Your task to perform on an android device: What's the weather going to be tomorrow? Image 0: 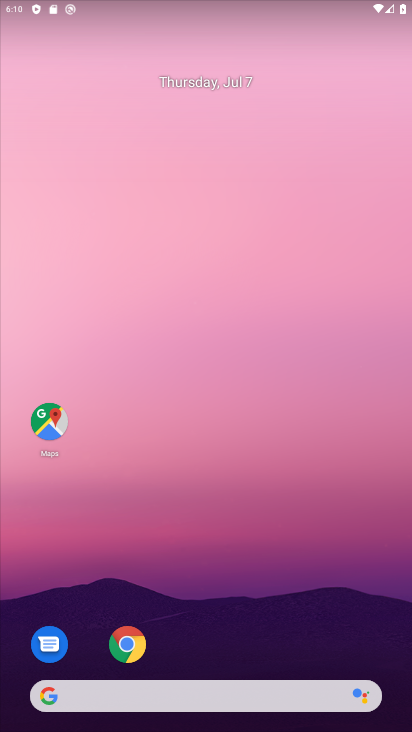
Step 0: drag from (253, 645) to (259, 180)
Your task to perform on an android device: What's the weather going to be tomorrow? Image 1: 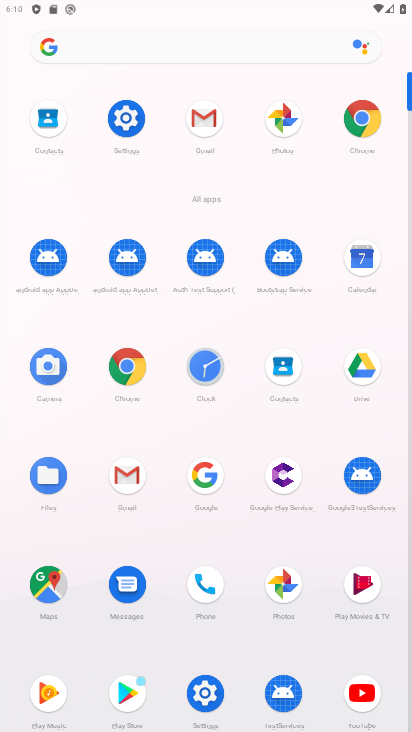
Step 1: click (369, 129)
Your task to perform on an android device: What's the weather going to be tomorrow? Image 2: 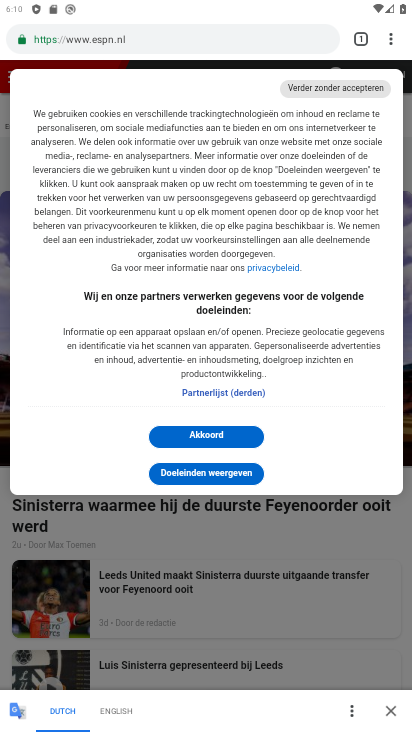
Step 2: click (200, 38)
Your task to perform on an android device: What's the weather going to be tomorrow? Image 3: 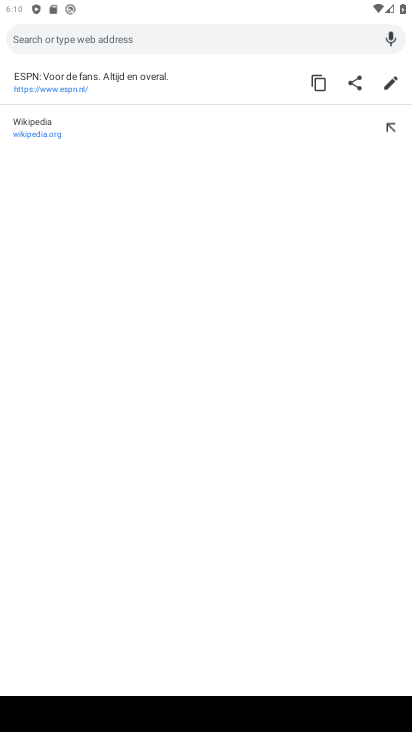
Step 3: type "What's the weather going to be tomorrow?"
Your task to perform on an android device: What's the weather going to be tomorrow? Image 4: 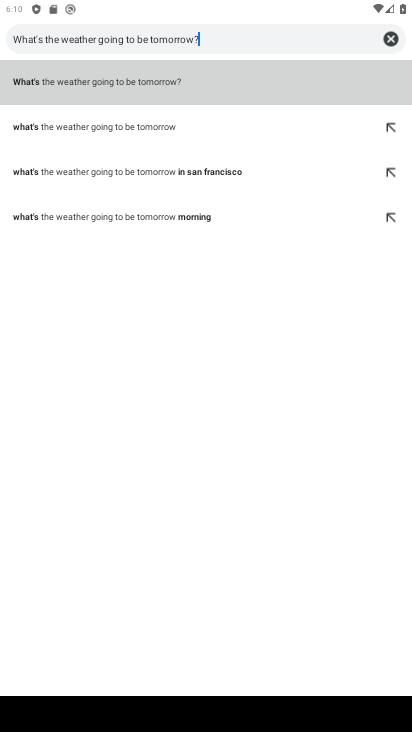
Step 4: type ""
Your task to perform on an android device: What's the weather going to be tomorrow? Image 5: 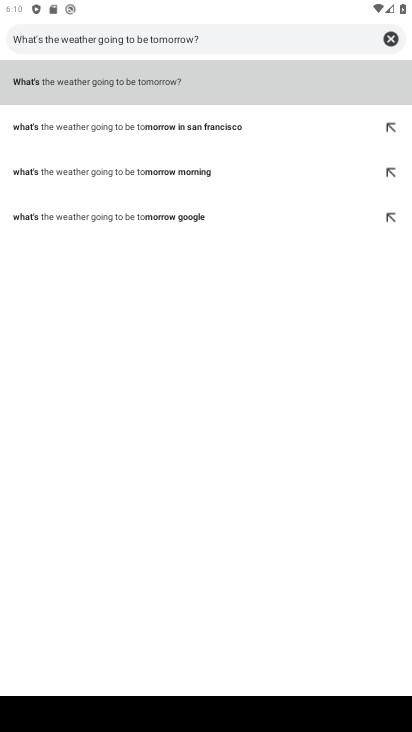
Step 5: click (94, 90)
Your task to perform on an android device: What's the weather going to be tomorrow? Image 6: 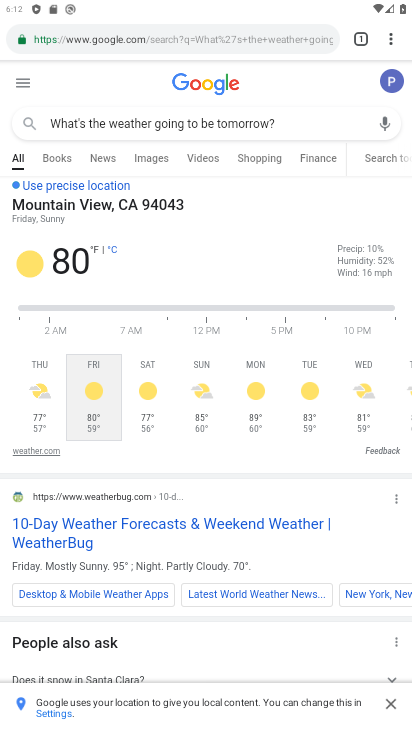
Step 6: task complete